Your task to perform on an android device: Open ESPN.com Image 0: 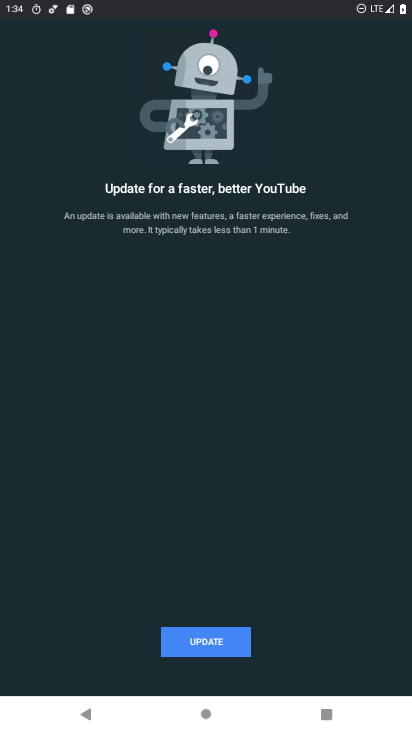
Step 0: press home button
Your task to perform on an android device: Open ESPN.com Image 1: 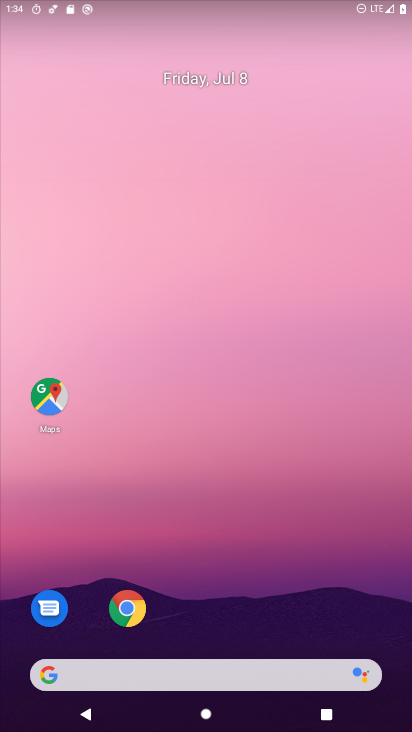
Step 1: drag from (247, 674) to (247, 68)
Your task to perform on an android device: Open ESPN.com Image 2: 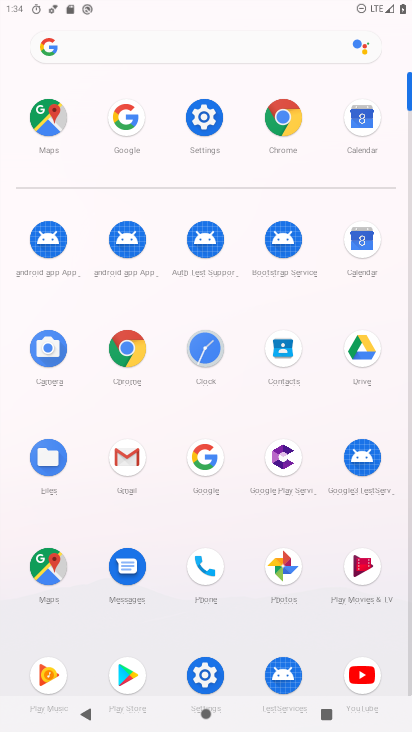
Step 2: click (285, 111)
Your task to perform on an android device: Open ESPN.com Image 3: 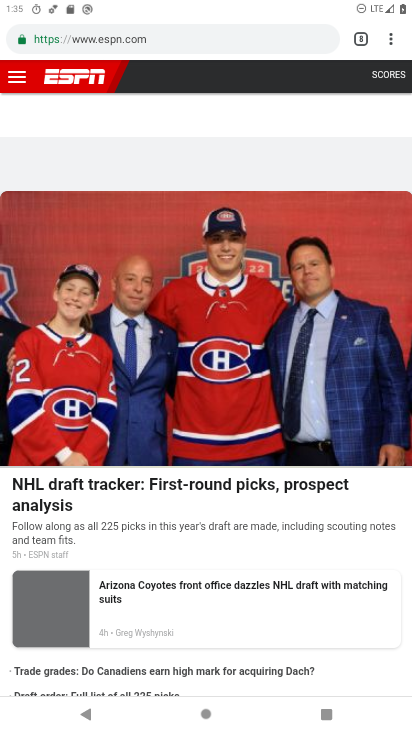
Step 3: task complete